Your task to perform on an android device: Open Google Chrome and click the shortcut for Amazon.com Image 0: 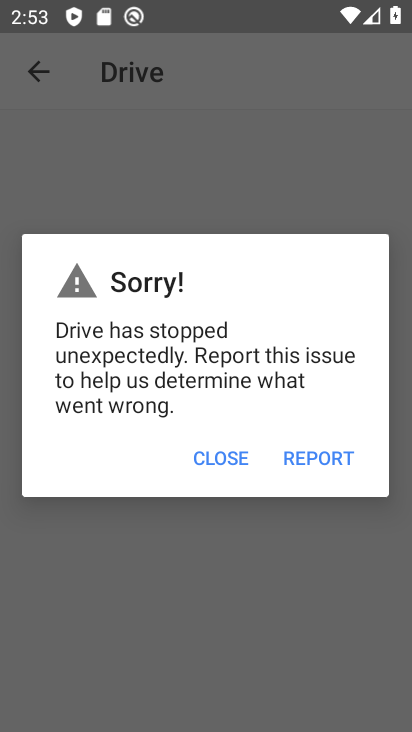
Step 0: press home button
Your task to perform on an android device: Open Google Chrome and click the shortcut for Amazon.com Image 1: 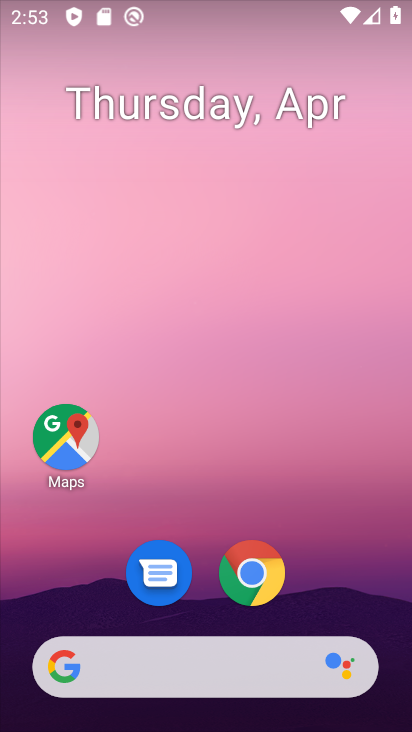
Step 1: drag from (319, 581) to (218, 192)
Your task to perform on an android device: Open Google Chrome and click the shortcut for Amazon.com Image 2: 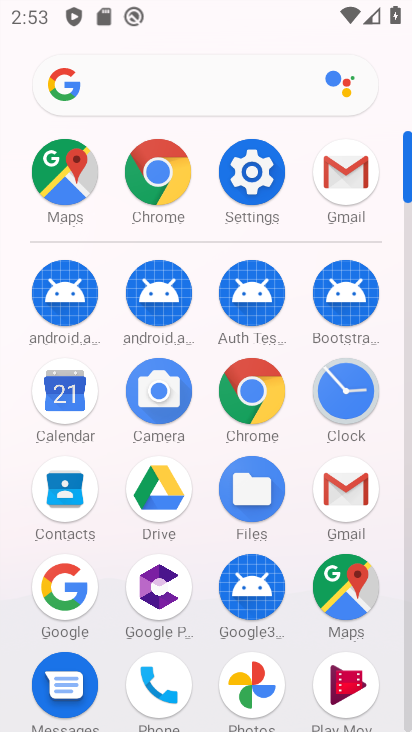
Step 2: click (157, 181)
Your task to perform on an android device: Open Google Chrome and click the shortcut for Amazon.com Image 3: 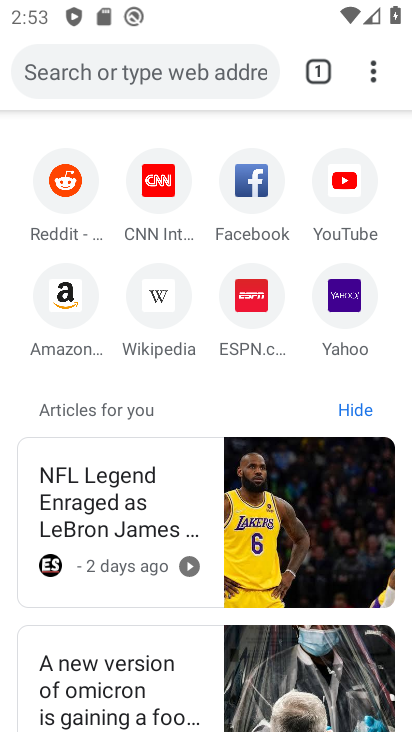
Step 3: click (55, 287)
Your task to perform on an android device: Open Google Chrome and click the shortcut for Amazon.com Image 4: 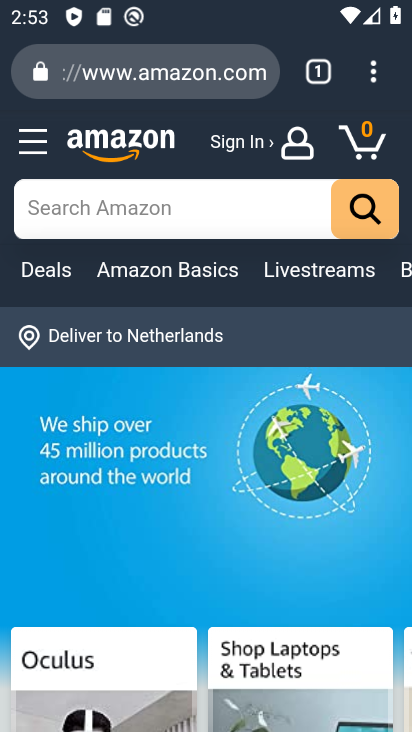
Step 4: task complete